Your task to perform on an android device: open app "Messages" (install if not already installed) and go to login screen Image 0: 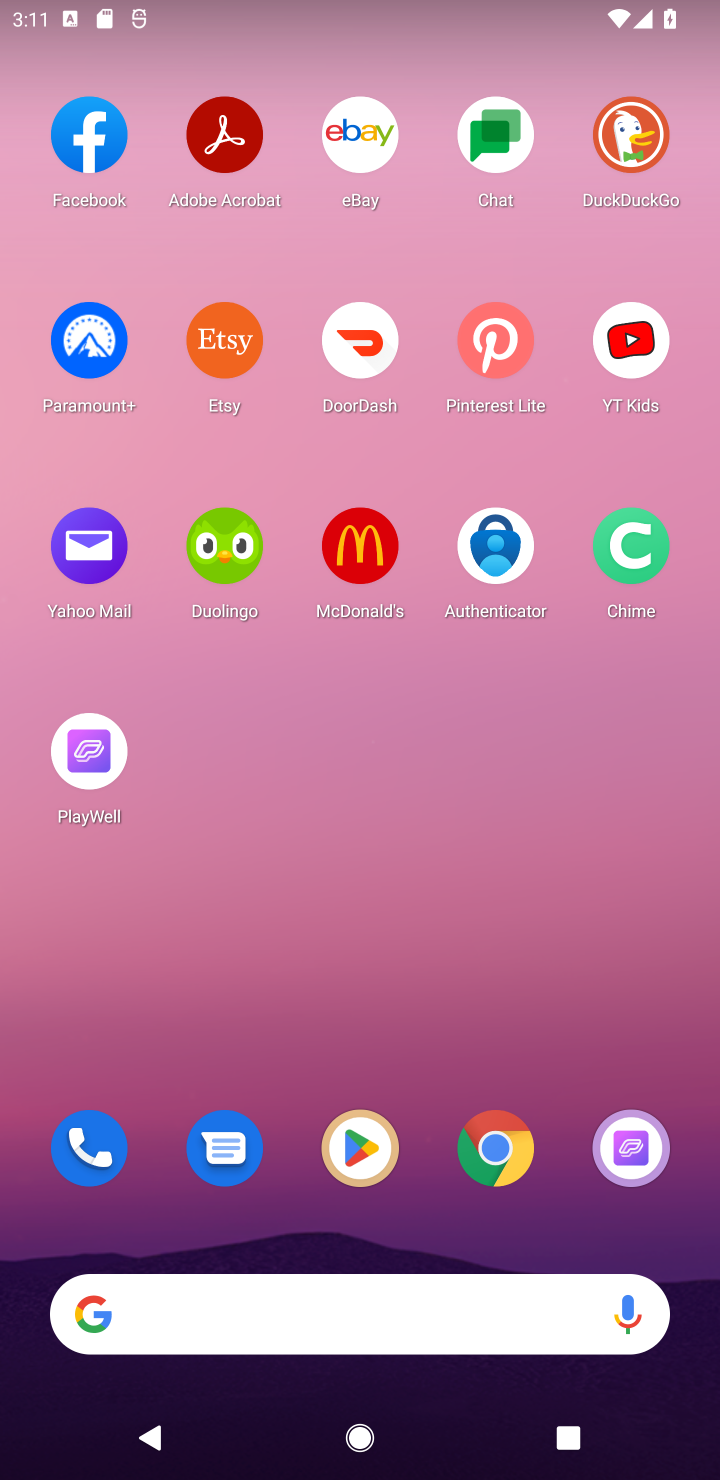
Step 0: click (346, 1171)
Your task to perform on an android device: open app "Messages" (install if not already installed) and go to login screen Image 1: 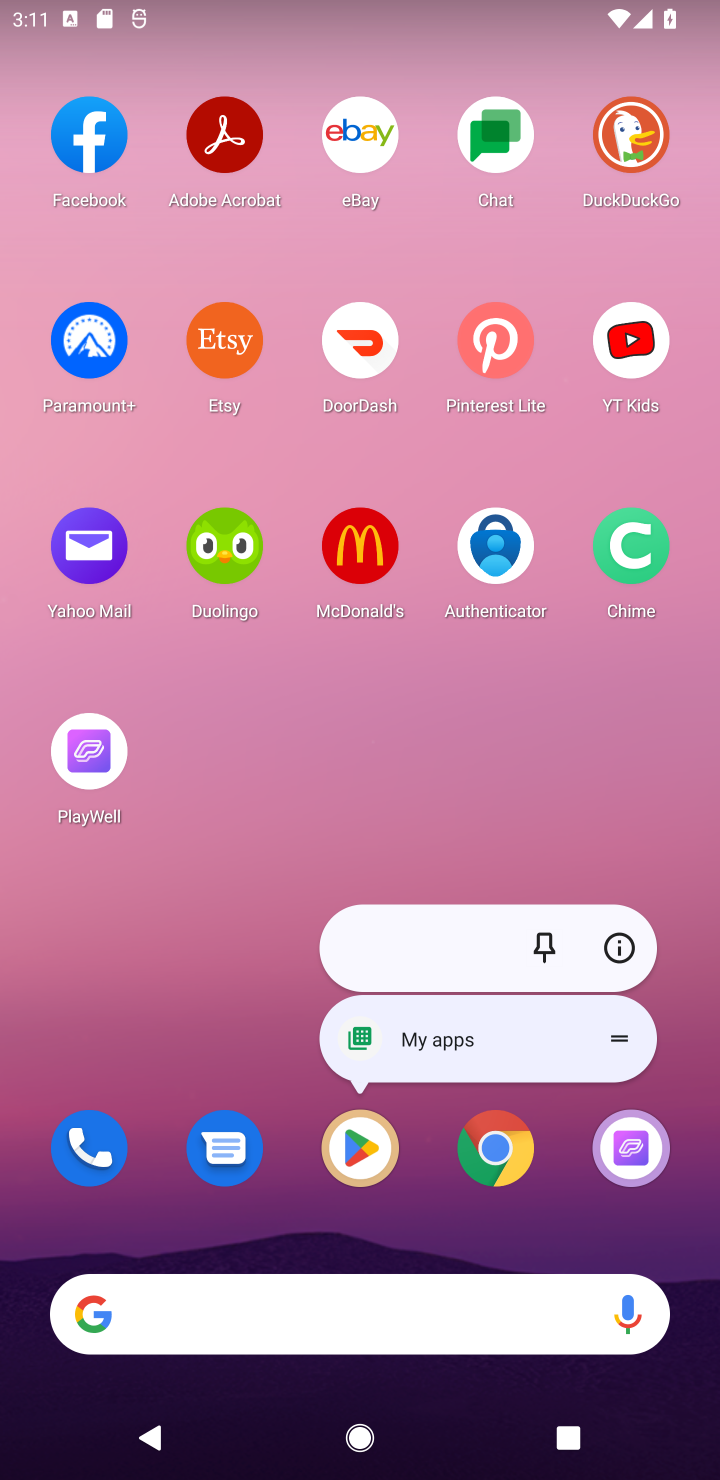
Step 1: click (346, 1171)
Your task to perform on an android device: open app "Messages" (install if not already installed) and go to login screen Image 2: 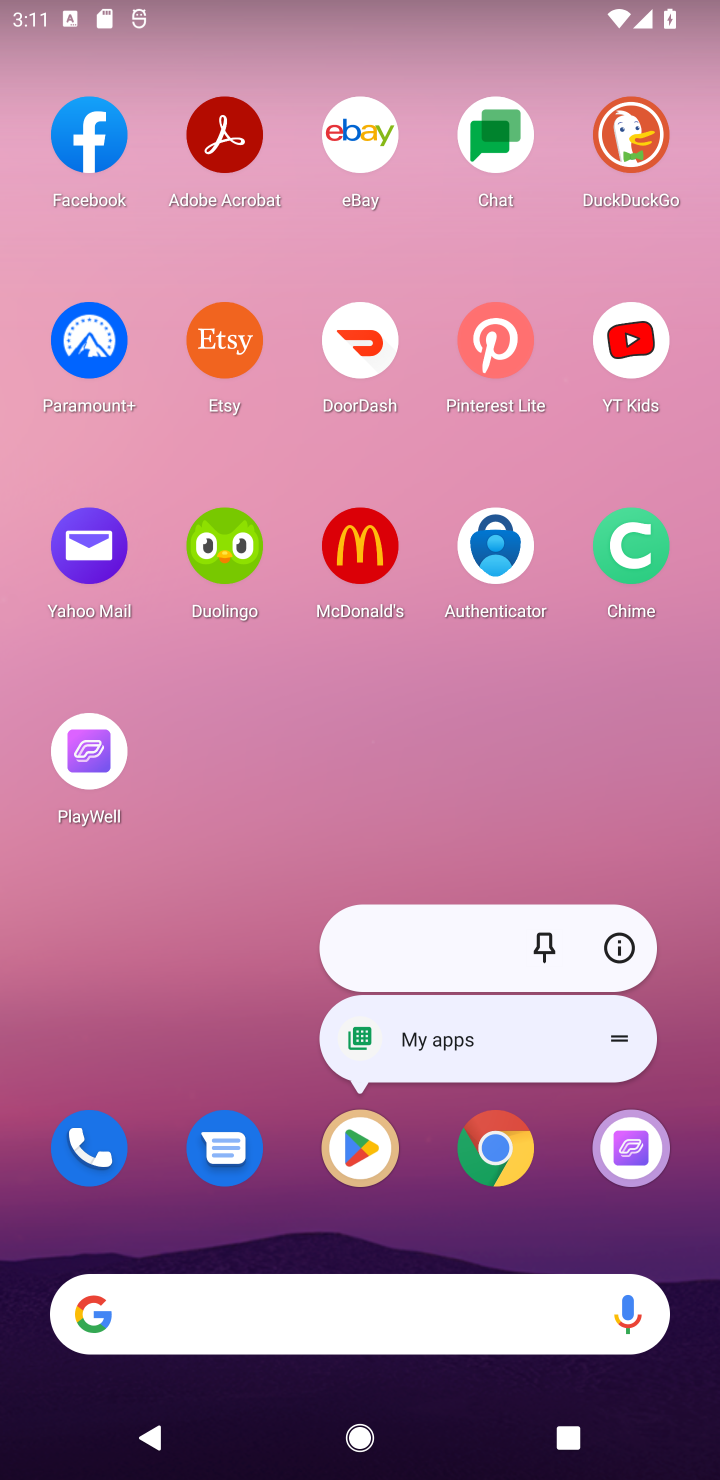
Step 2: click (346, 1153)
Your task to perform on an android device: open app "Messages" (install if not already installed) and go to login screen Image 3: 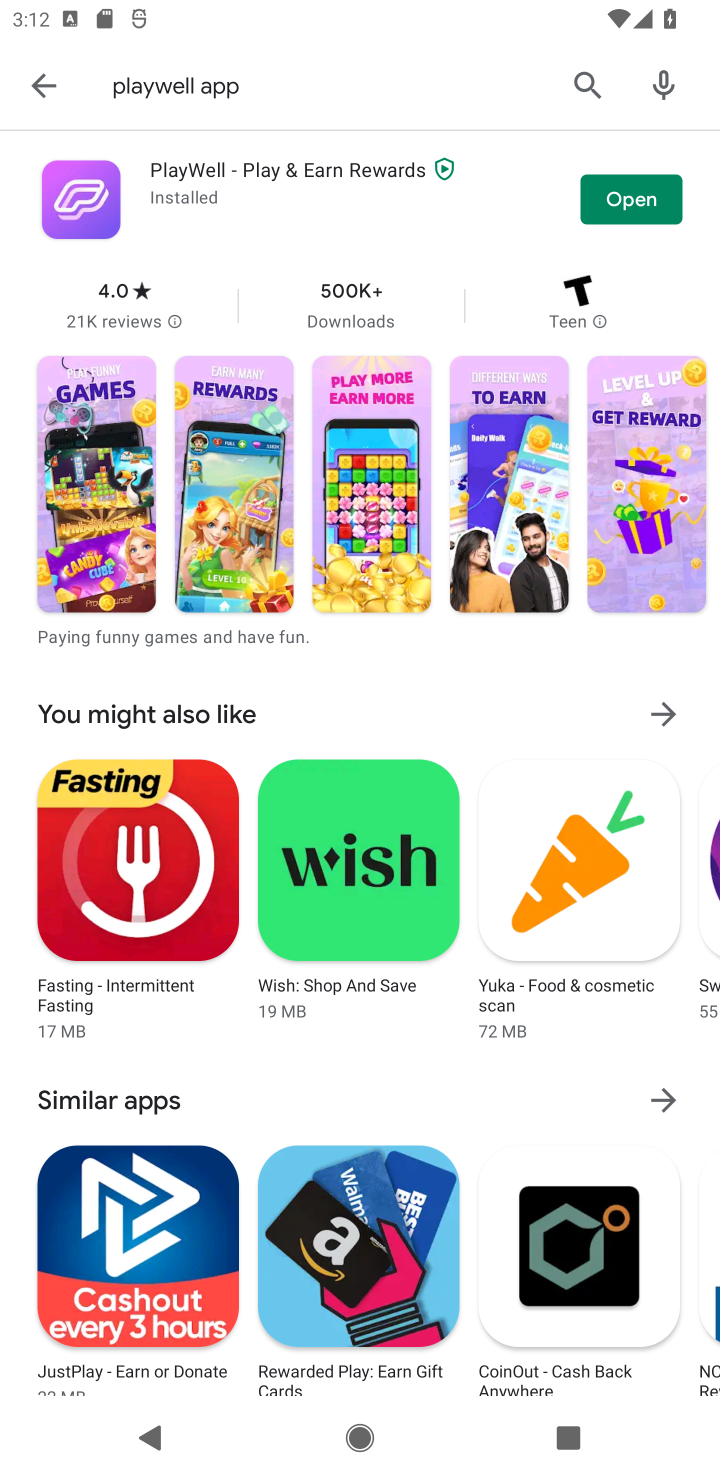
Step 3: click (52, 73)
Your task to perform on an android device: open app "Messages" (install if not already installed) and go to login screen Image 4: 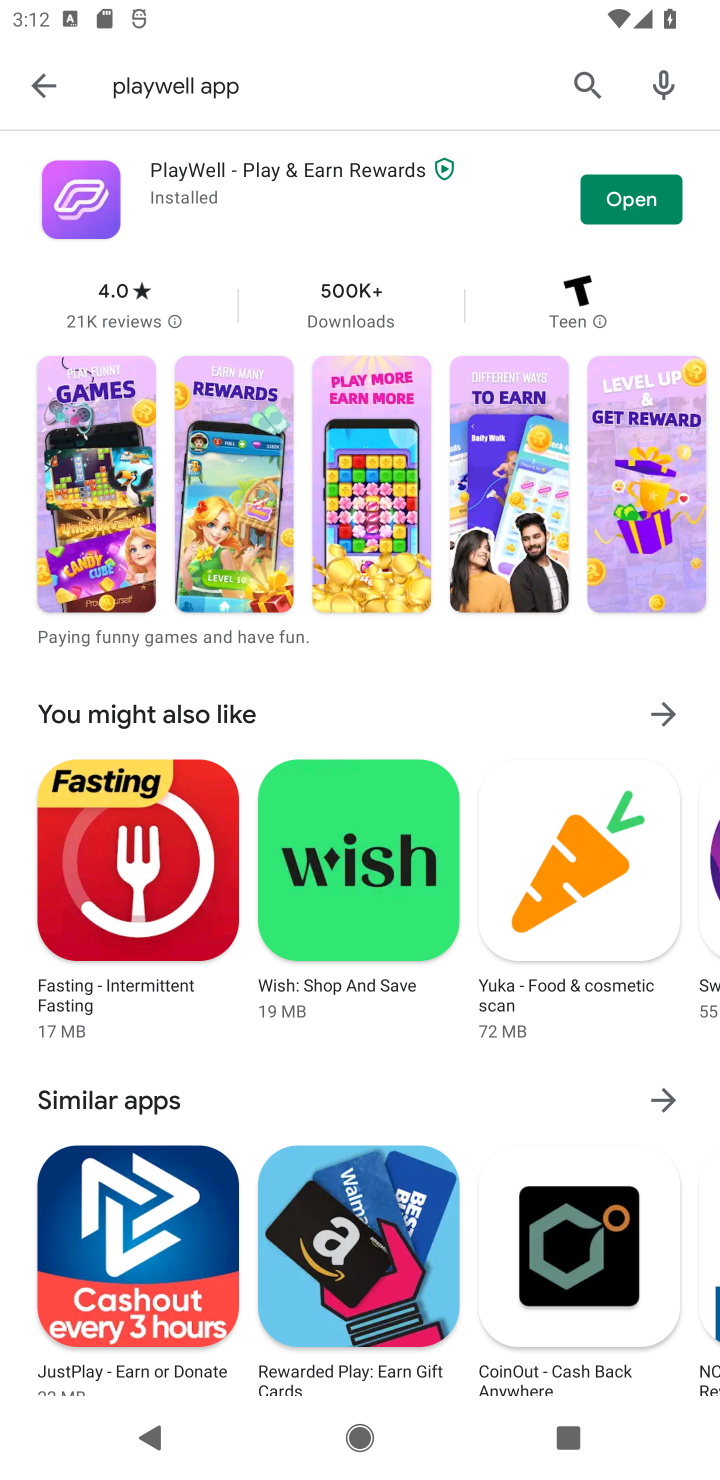
Step 4: click (50, 82)
Your task to perform on an android device: open app "Messages" (install if not already installed) and go to login screen Image 5: 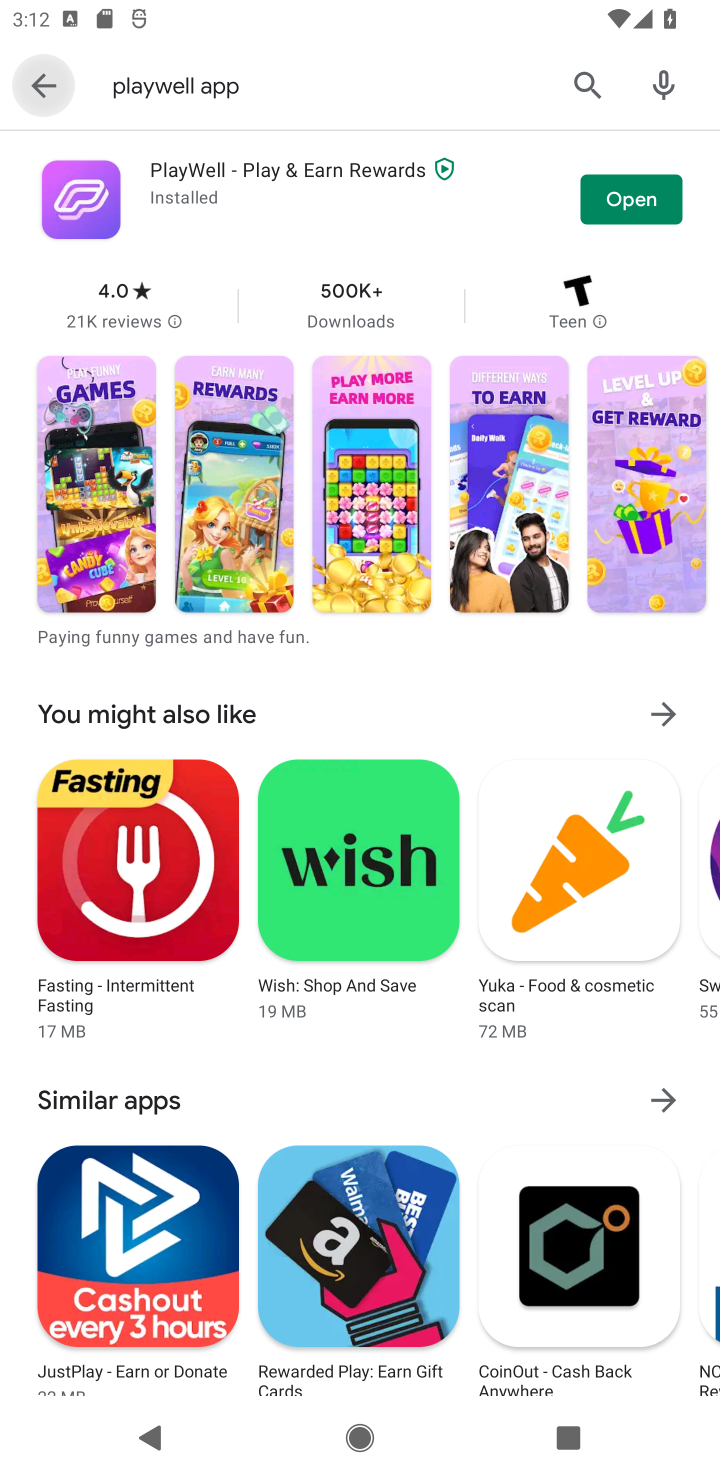
Step 5: click (594, 75)
Your task to perform on an android device: open app "Messages" (install if not already installed) and go to login screen Image 6: 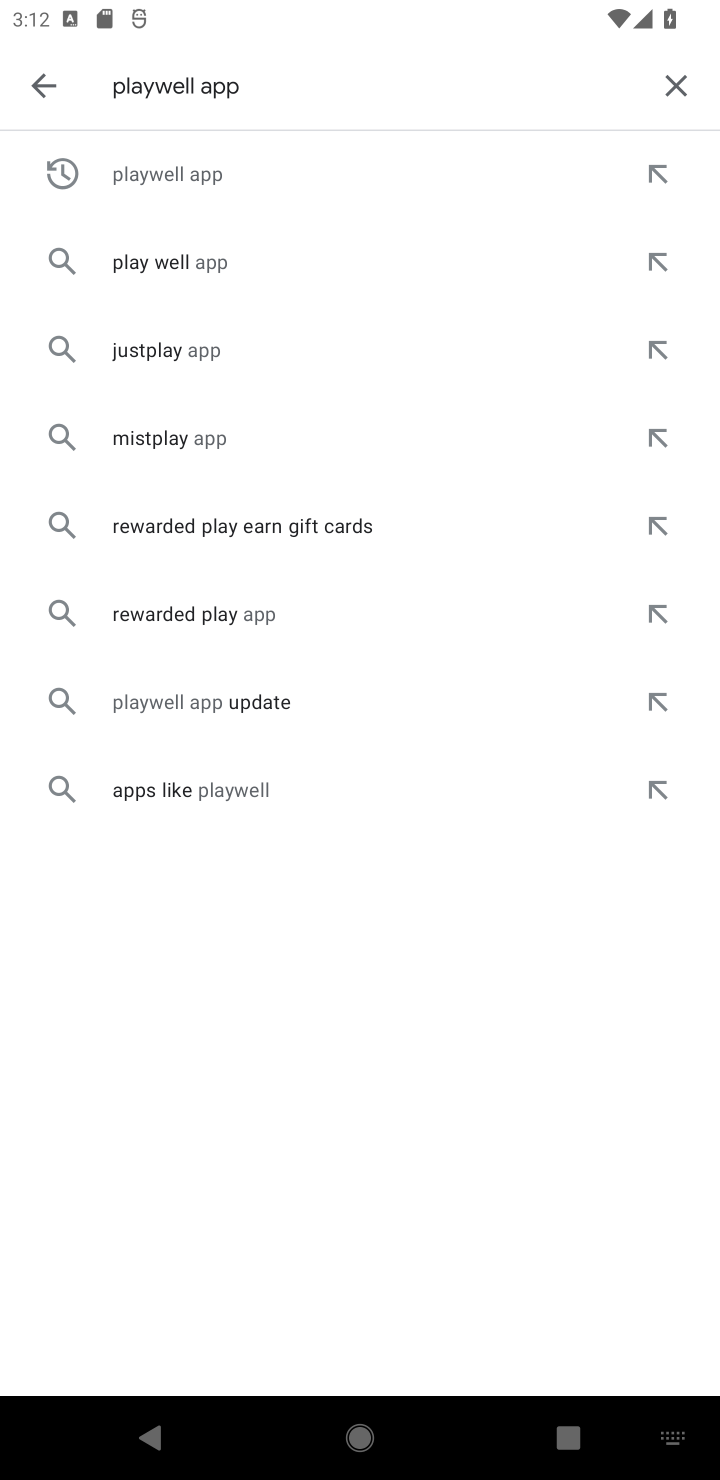
Step 6: click (690, 89)
Your task to perform on an android device: open app "Messages" (install if not already installed) and go to login screen Image 7: 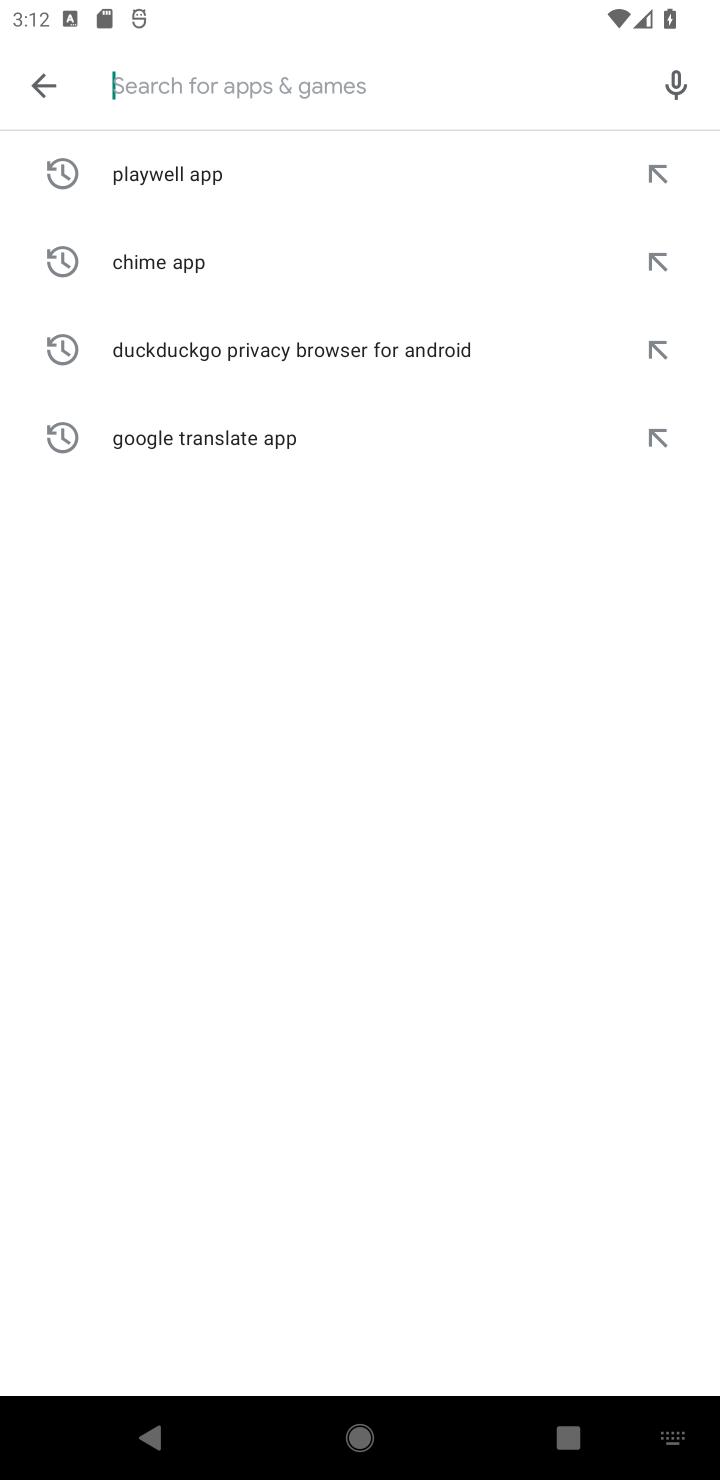
Step 7: click (282, 83)
Your task to perform on an android device: open app "Messages" (install if not already installed) and go to login screen Image 8: 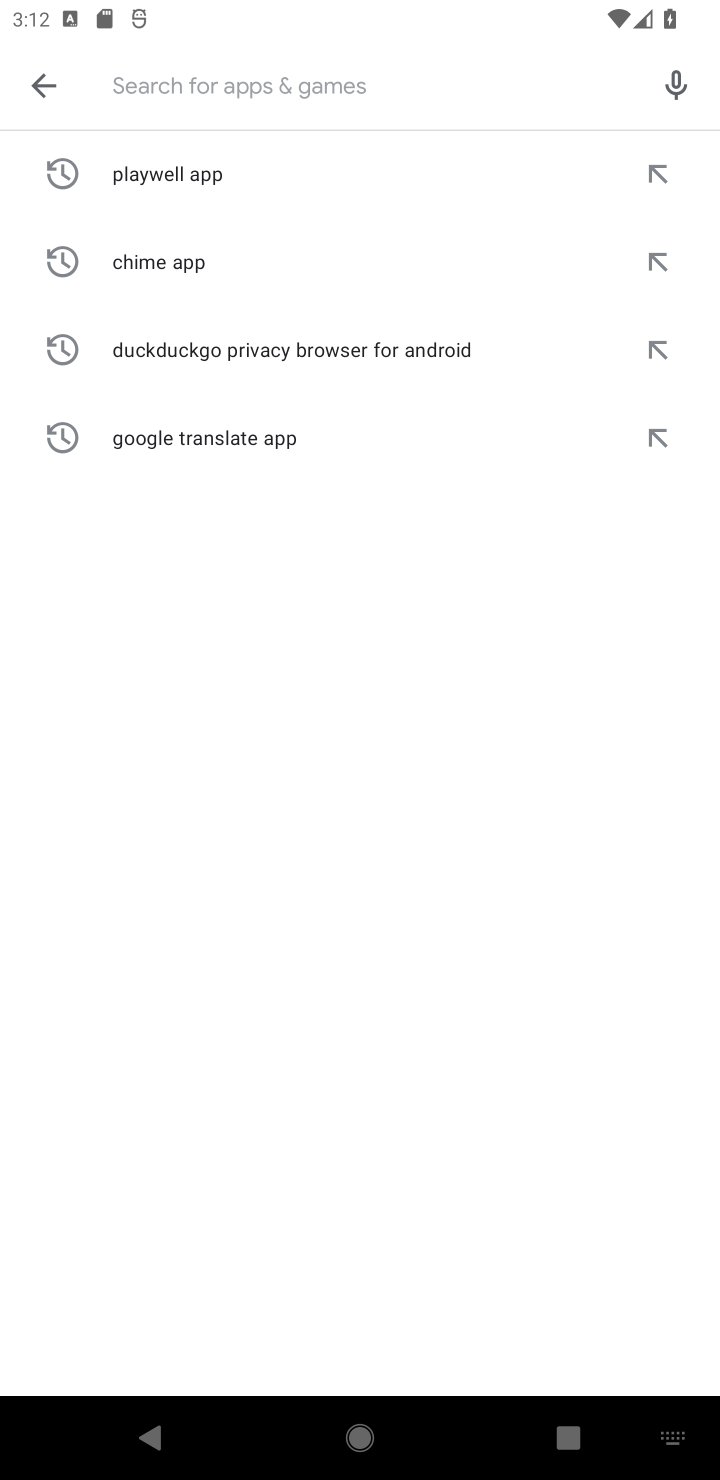
Step 8: type "Messages "
Your task to perform on an android device: open app "Messages" (install if not already installed) and go to login screen Image 9: 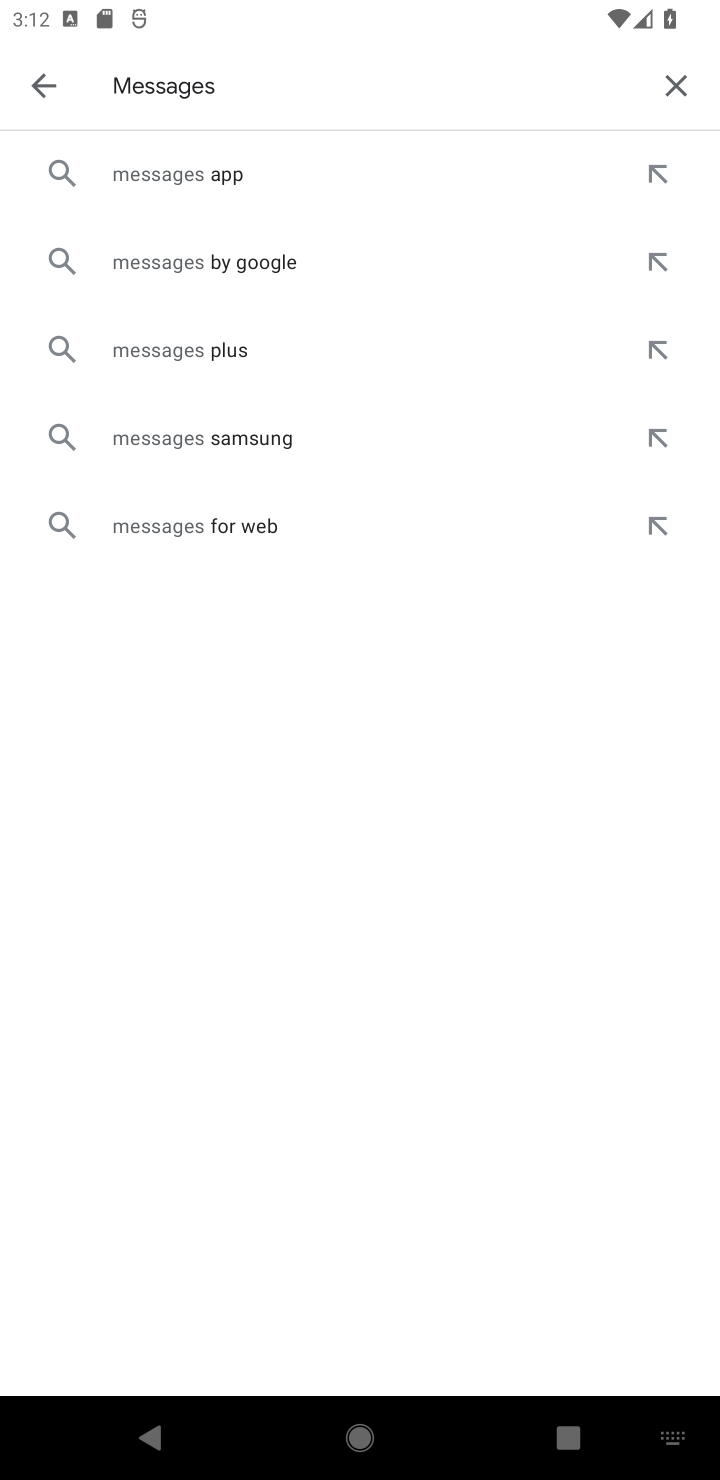
Step 9: click (248, 164)
Your task to perform on an android device: open app "Messages" (install if not already installed) and go to login screen Image 10: 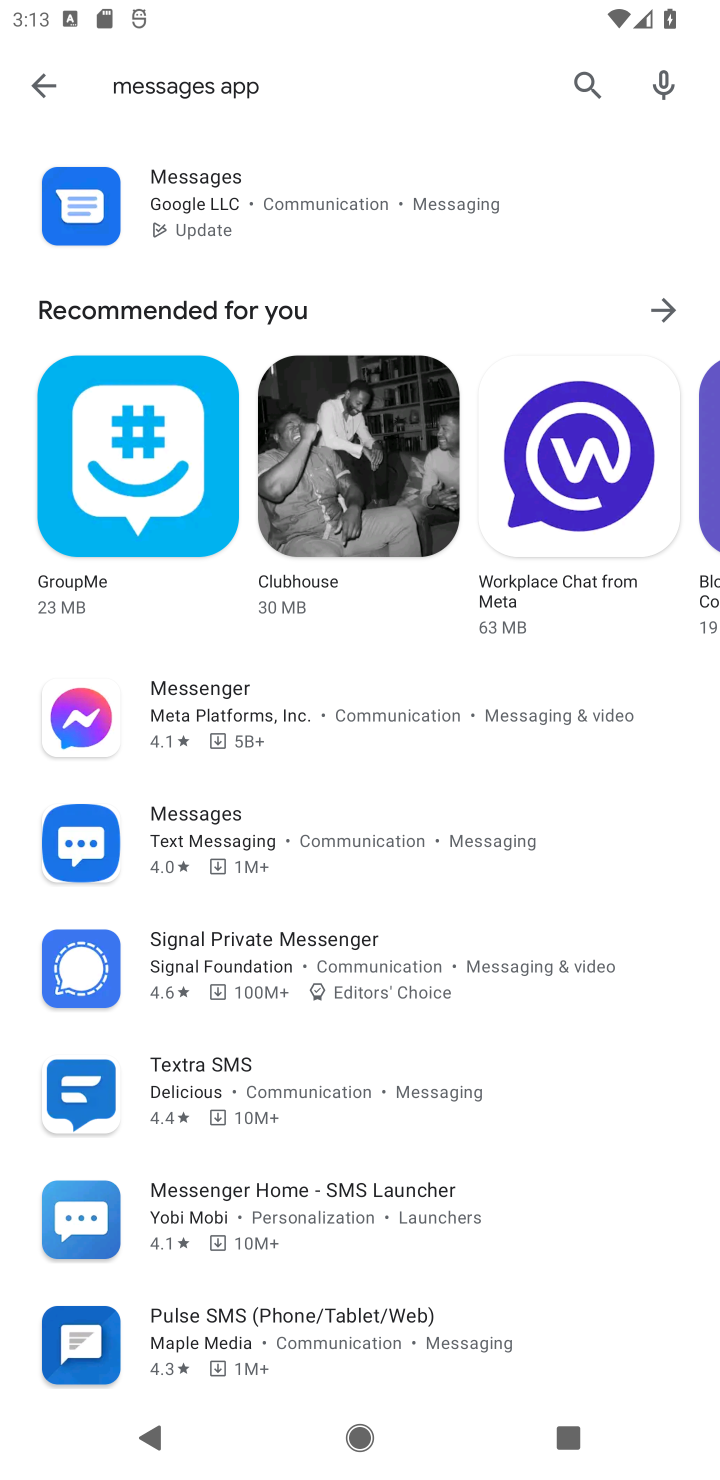
Step 10: click (343, 208)
Your task to perform on an android device: open app "Messages" (install if not already installed) and go to login screen Image 11: 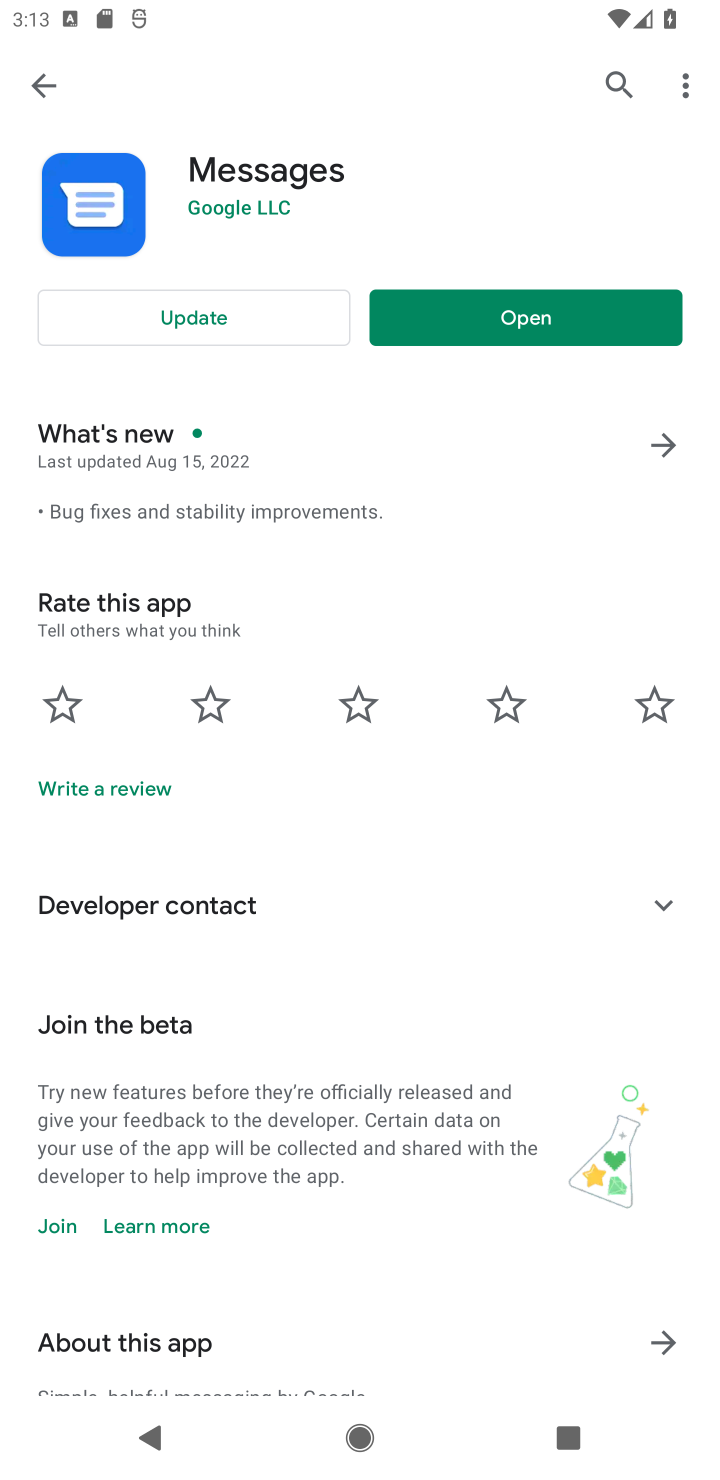
Step 11: click (495, 329)
Your task to perform on an android device: open app "Messages" (install if not already installed) and go to login screen Image 12: 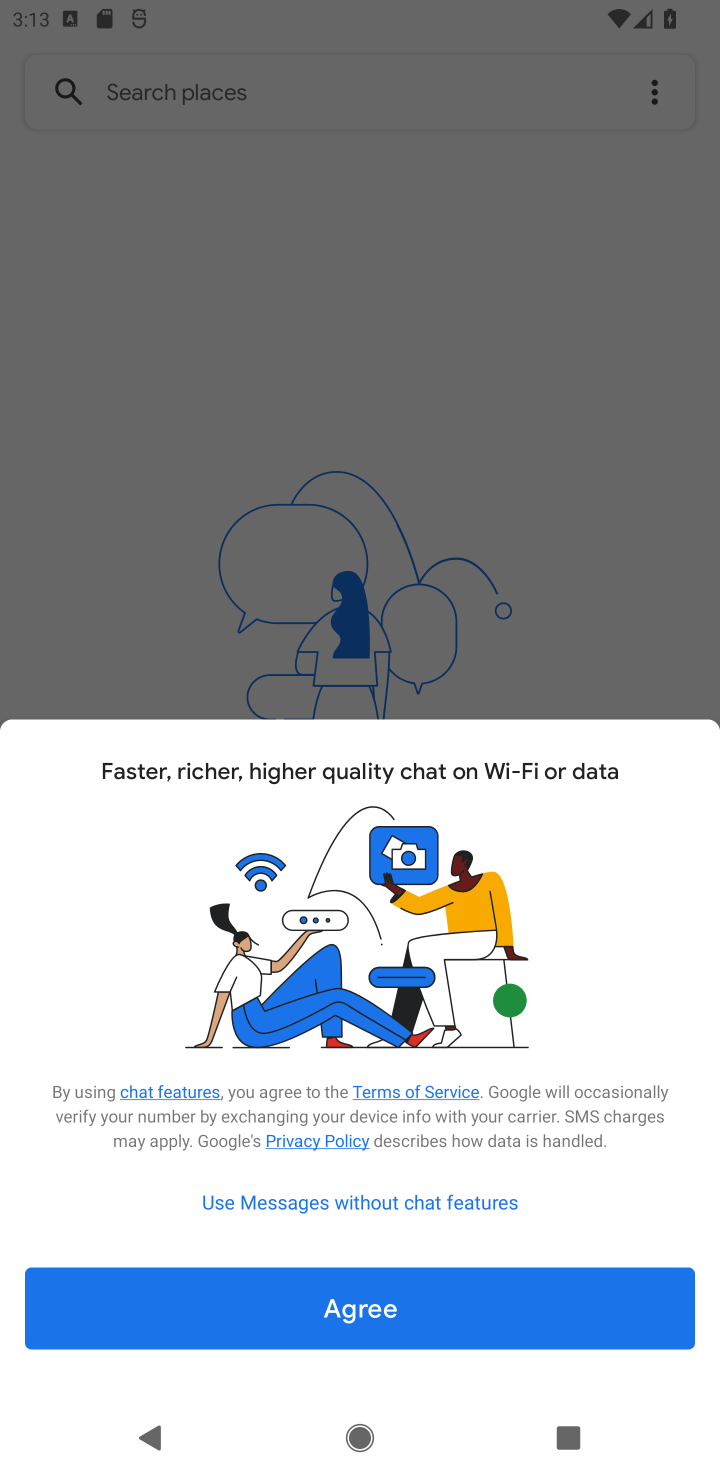
Step 12: task complete